Your task to perform on an android device: toggle sleep mode Image 0: 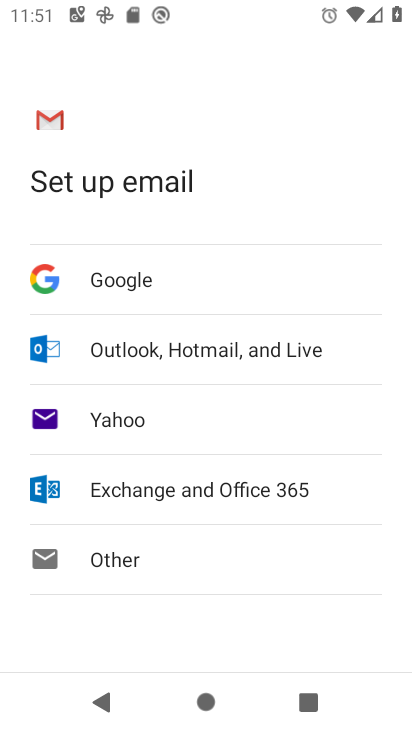
Step 0: press home button
Your task to perform on an android device: toggle sleep mode Image 1: 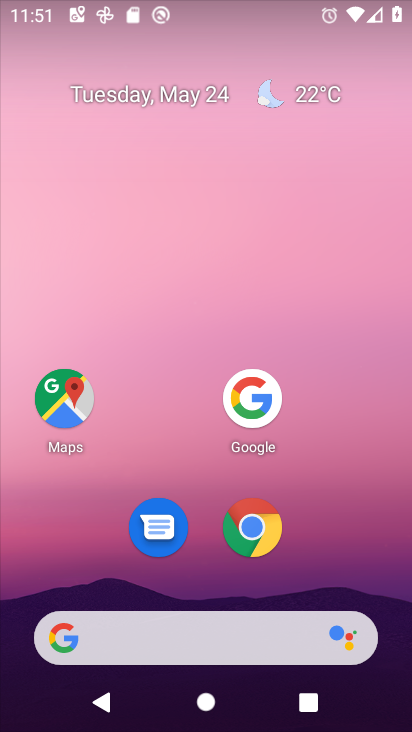
Step 1: drag from (200, 652) to (374, 201)
Your task to perform on an android device: toggle sleep mode Image 2: 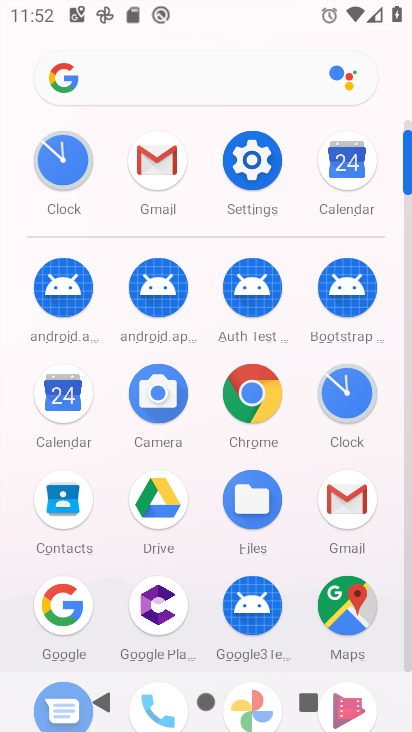
Step 2: click (257, 178)
Your task to perform on an android device: toggle sleep mode Image 3: 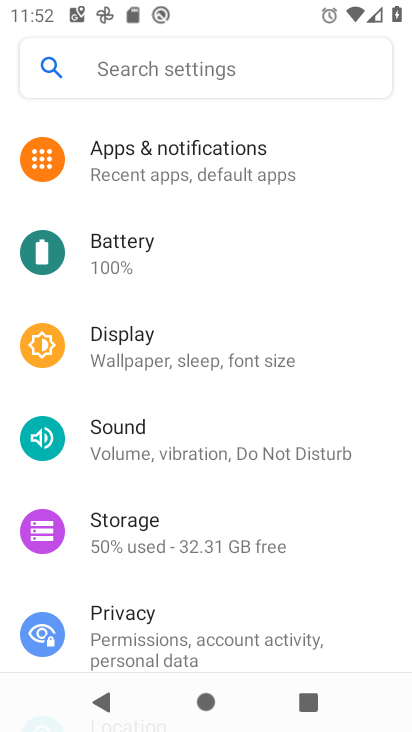
Step 3: click (224, 345)
Your task to perform on an android device: toggle sleep mode Image 4: 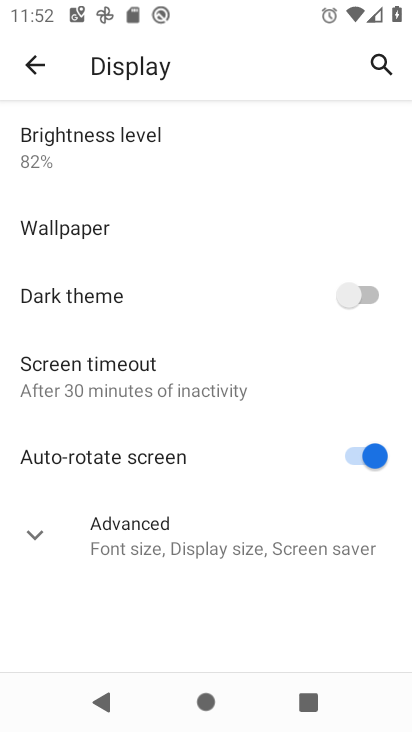
Step 4: task complete